Your task to perform on an android device: What's the weather going to be tomorrow? Image 0: 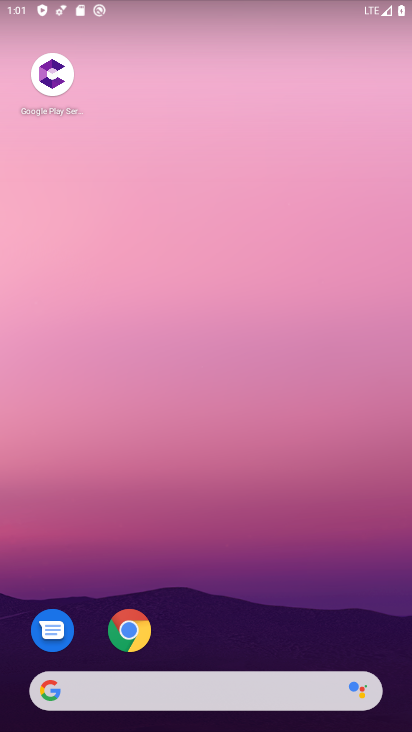
Step 0: click (198, 688)
Your task to perform on an android device: What's the weather going to be tomorrow? Image 1: 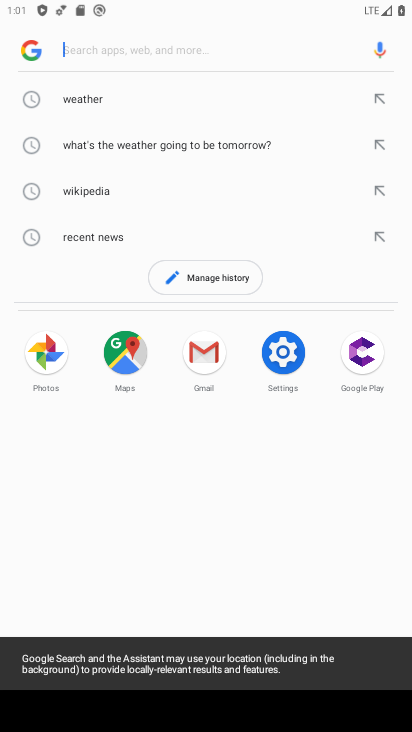
Step 1: click (90, 99)
Your task to perform on an android device: What's the weather going to be tomorrow? Image 2: 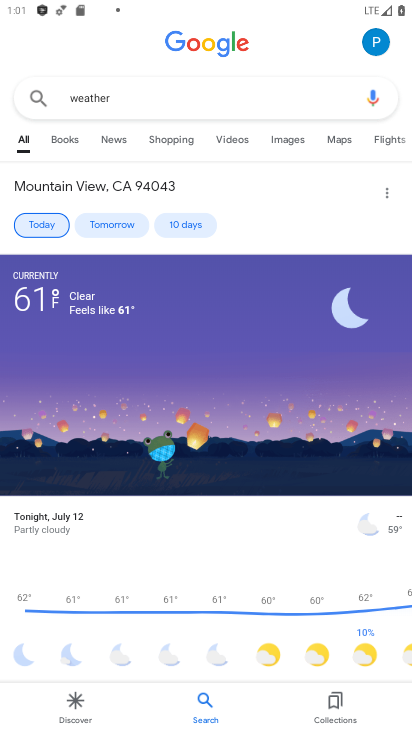
Step 2: click (120, 224)
Your task to perform on an android device: What's the weather going to be tomorrow? Image 3: 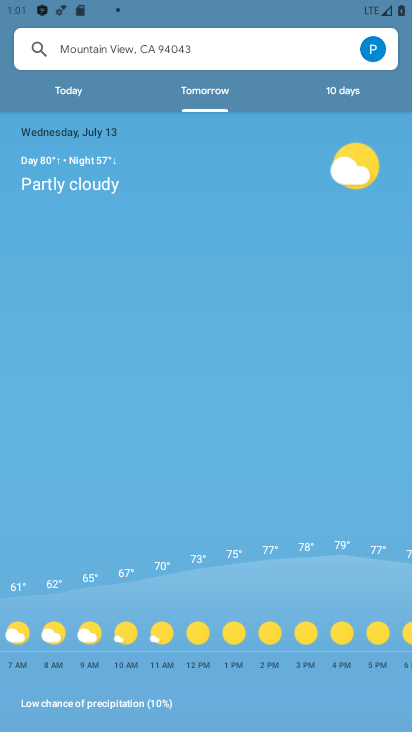
Step 3: task complete